Your task to perform on an android device: Add usb-b to the cart on ebay.com Image 0: 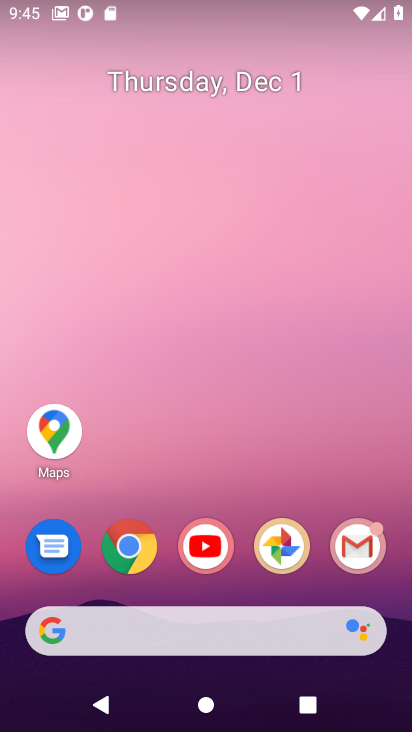
Step 0: click (128, 555)
Your task to perform on an android device: Add usb-b to the cart on ebay.com Image 1: 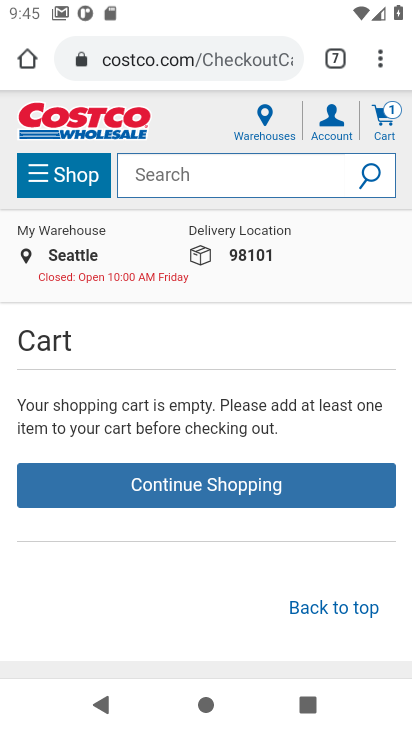
Step 1: click (184, 62)
Your task to perform on an android device: Add usb-b to the cart on ebay.com Image 2: 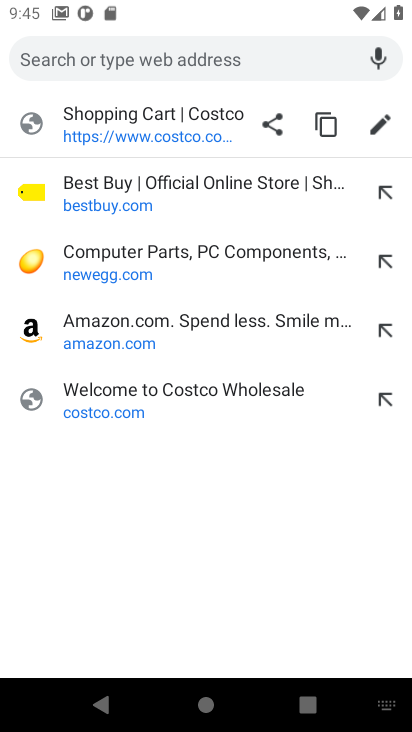
Step 2: type "ebay.com"
Your task to perform on an android device: Add usb-b to the cart on ebay.com Image 3: 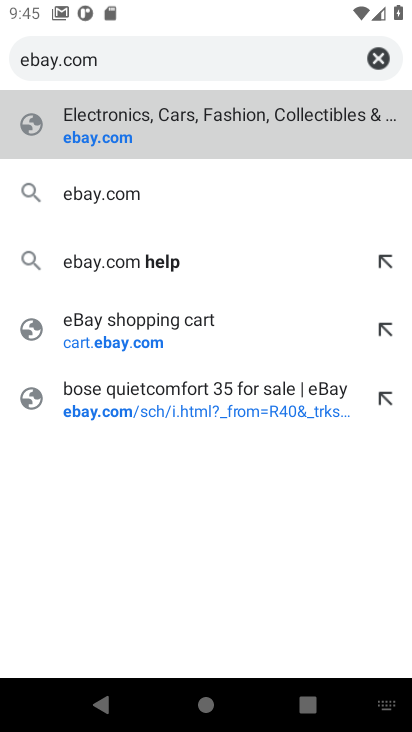
Step 3: click (79, 141)
Your task to perform on an android device: Add usb-b to the cart on ebay.com Image 4: 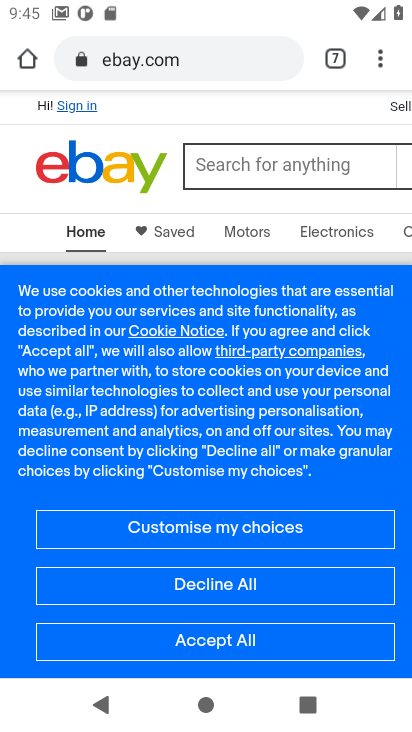
Step 4: click (239, 157)
Your task to perform on an android device: Add usb-b to the cart on ebay.com Image 5: 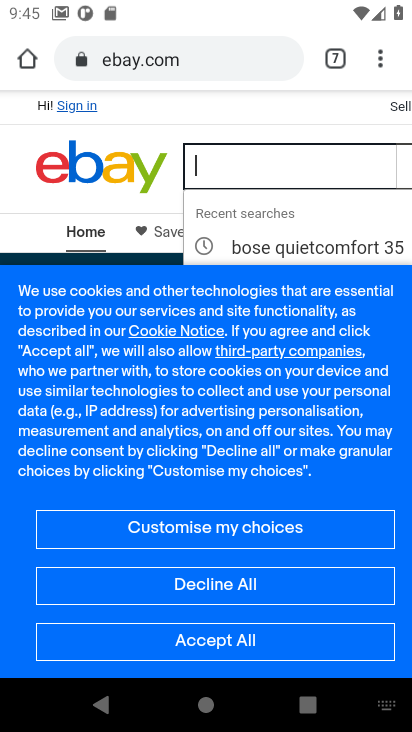
Step 5: type "usb-b "
Your task to perform on an android device: Add usb-b to the cart on ebay.com Image 6: 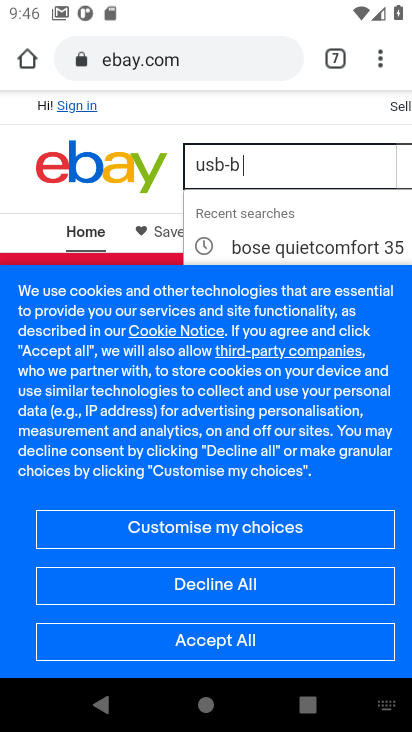
Step 6: drag from (265, 122) to (0, 124)
Your task to perform on an android device: Add usb-b to the cart on ebay.com Image 7: 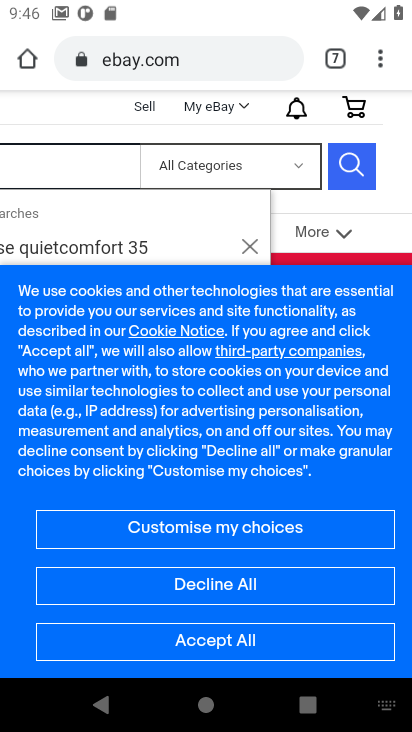
Step 7: click (340, 166)
Your task to perform on an android device: Add usb-b to the cart on ebay.com Image 8: 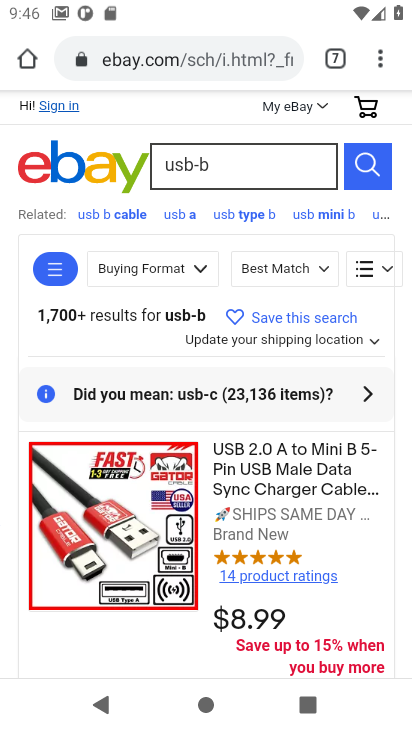
Step 8: drag from (105, 558) to (96, 403)
Your task to perform on an android device: Add usb-b to the cart on ebay.com Image 9: 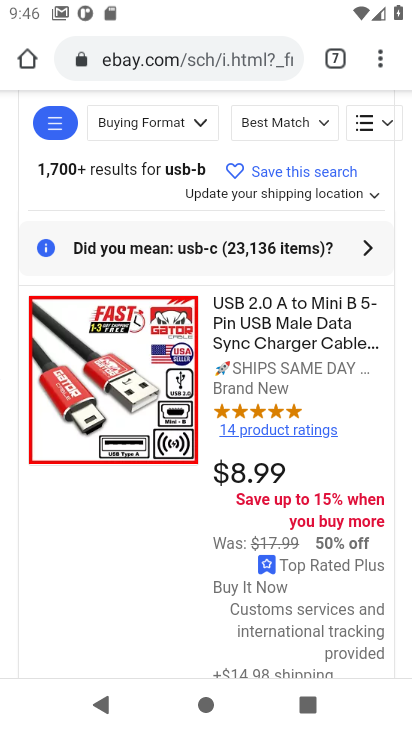
Step 9: drag from (113, 550) to (98, 353)
Your task to perform on an android device: Add usb-b to the cart on ebay.com Image 10: 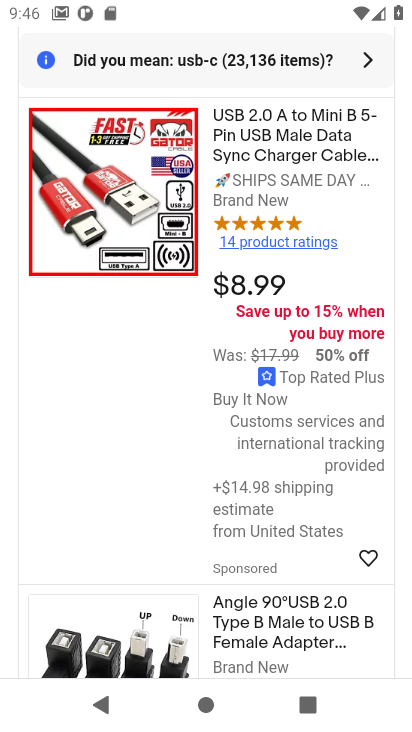
Step 10: click (258, 175)
Your task to perform on an android device: Add usb-b to the cart on ebay.com Image 11: 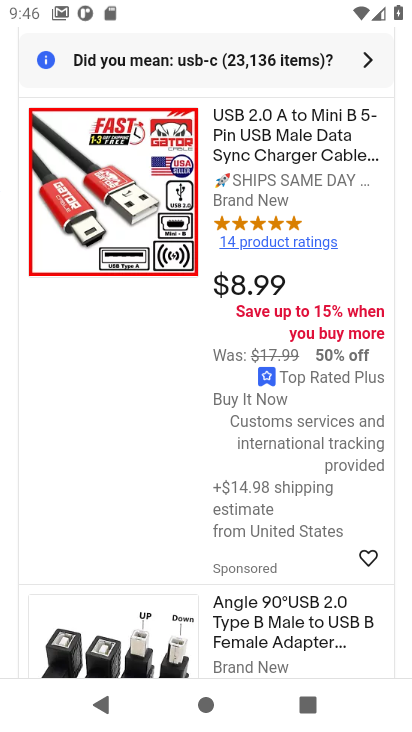
Step 11: click (245, 151)
Your task to perform on an android device: Add usb-b to the cart on ebay.com Image 12: 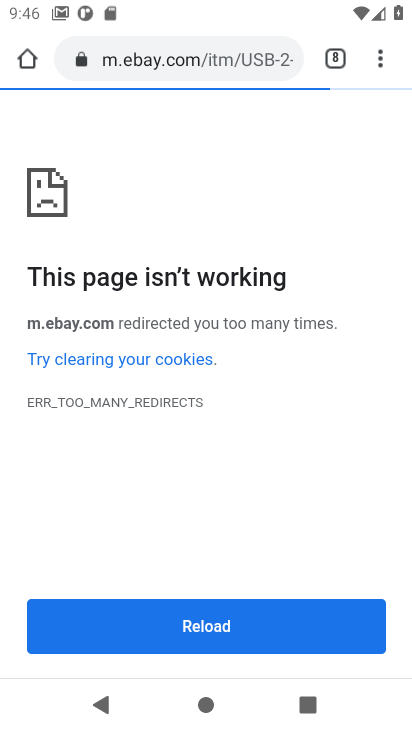
Step 12: task complete